Your task to perform on an android device: toggle pop-ups in chrome Image 0: 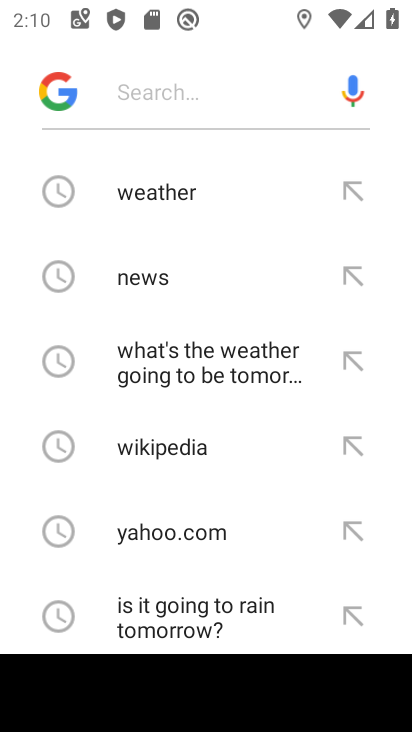
Step 0: press back button
Your task to perform on an android device: toggle pop-ups in chrome Image 1: 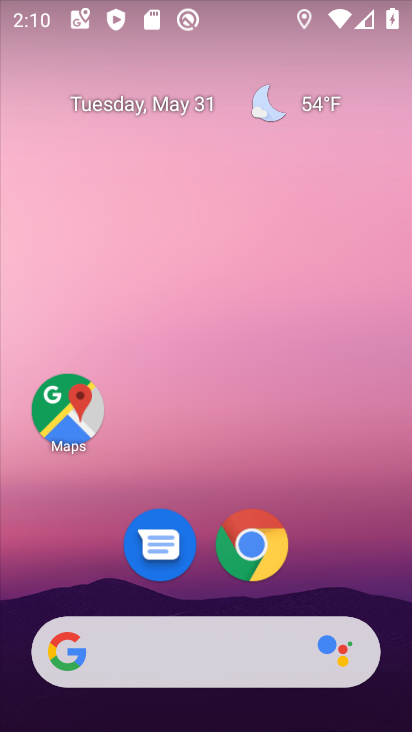
Step 1: click (242, 546)
Your task to perform on an android device: toggle pop-ups in chrome Image 2: 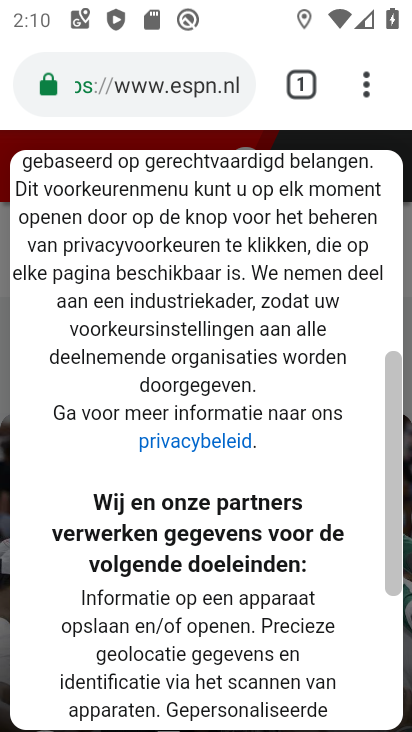
Step 2: click (370, 80)
Your task to perform on an android device: toggle pop-ups in chrome Image 3: 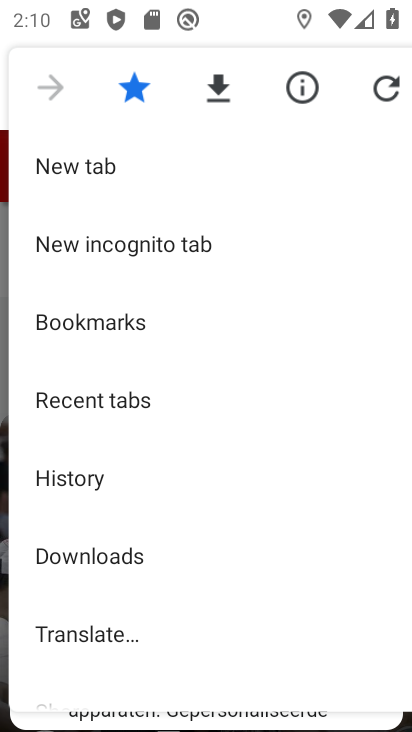
Step 3: drag from (206, 585) to (174, 224)
Your task to perform on an android device: toggle pop-ups in chrome Image 4: 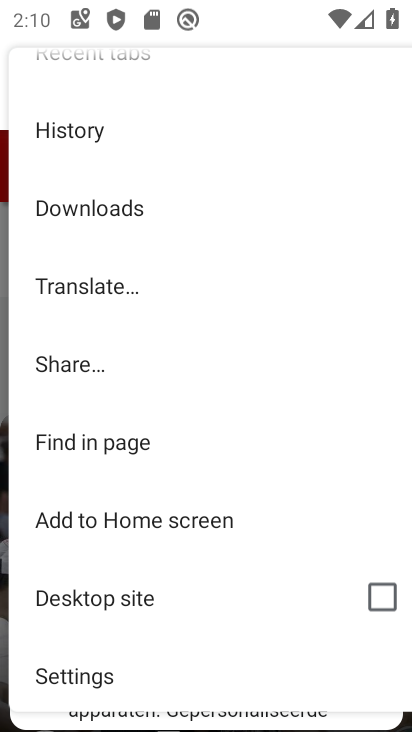
Step 4: click (125, 677)
Your task to perform on an android device: toggle pop-ups in chrome Image 5: 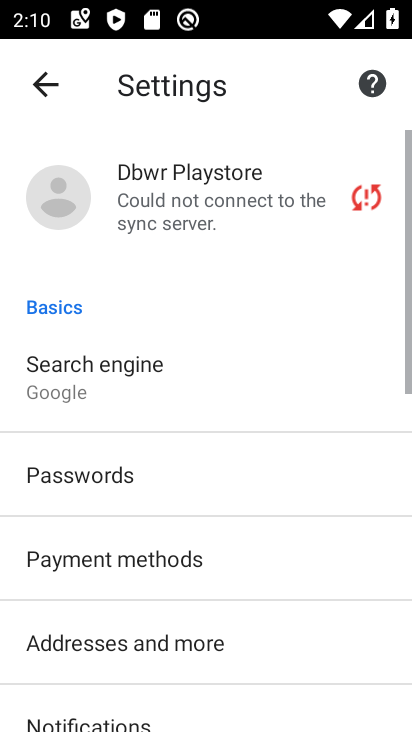
Step 5: drag from (164, 612) to (152, 194)
Your task to perform on an android device: toggle pop-ups in chrome Image 6: 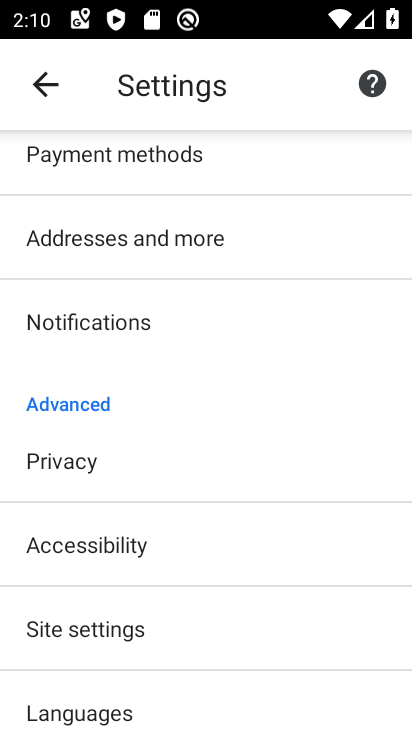
Step 6: click (111, 603)
Your task to perform on an android device: toggle pop-ups in chrome Image 7: 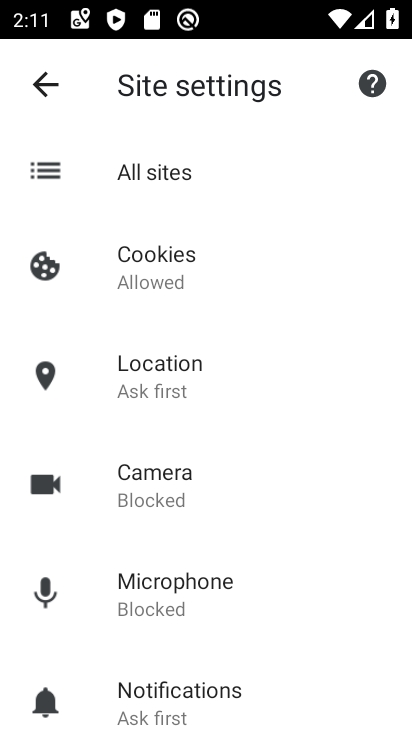
Step 7: drag from (238, 624) to (223, 248)
Your task to perform on an android device: toggle pop-ups in chrome Image 8: 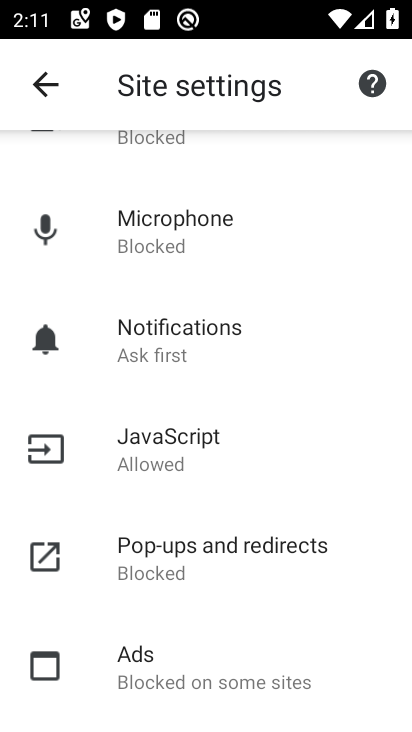
Step 8: click (190, 569)
Your task to perform on an android device: toggle pop-ups in chrome Image 9: 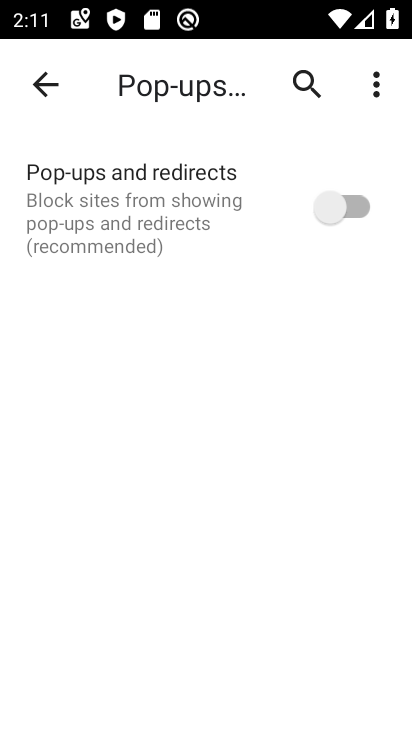
Step 9: click (347, 204)
Your task to perform on an android device: toggle pop-ups in chrome Image 10: 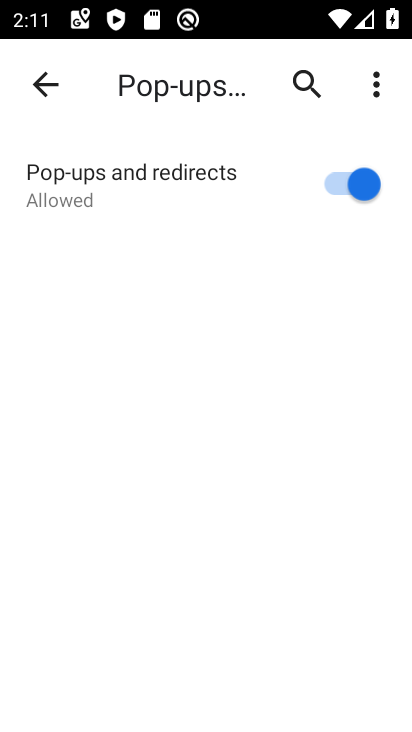
Step 10: task complete